Your task to perform on an android device: Open network settings Image 0: 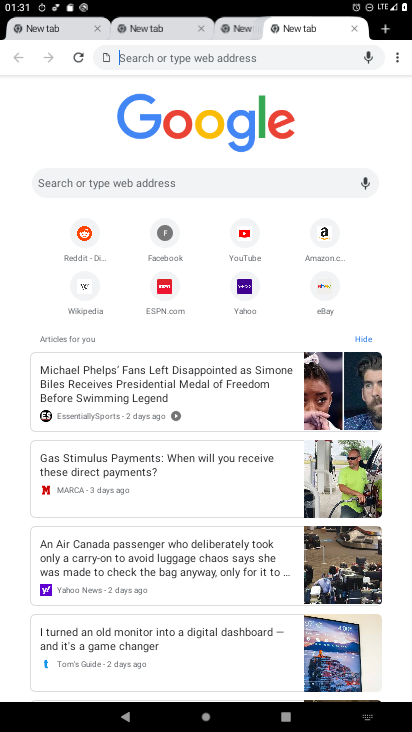
Step 0: press home button
Your task to perform on an android device: Open network settings Image 1: 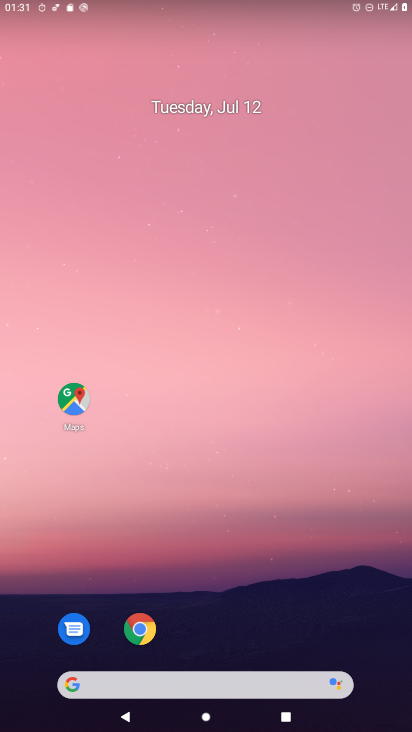
Step 1: drag from (33, 700) to (204, 0)
Your task to perform on an android device: Open network settings Image 2: 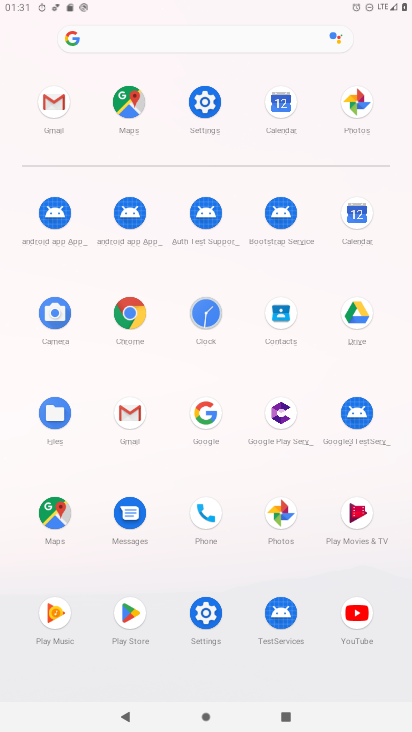
Step 2: click (207, 606)
Your task to perform on an android device: Open network settings Image 3: 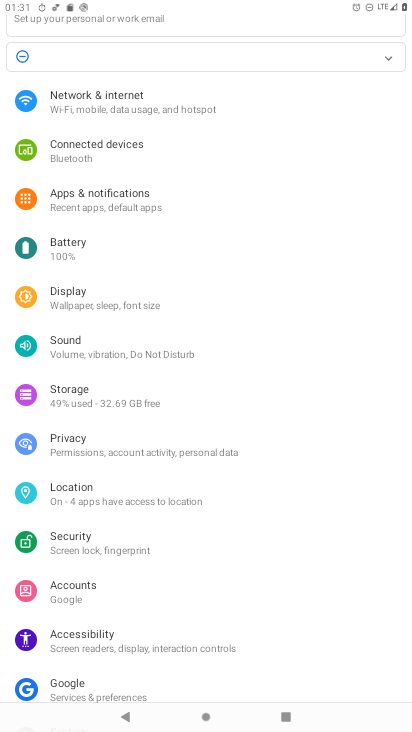
Step 3: click (106, 108)
Your task to perform on an android device: Open network settings Image 4: 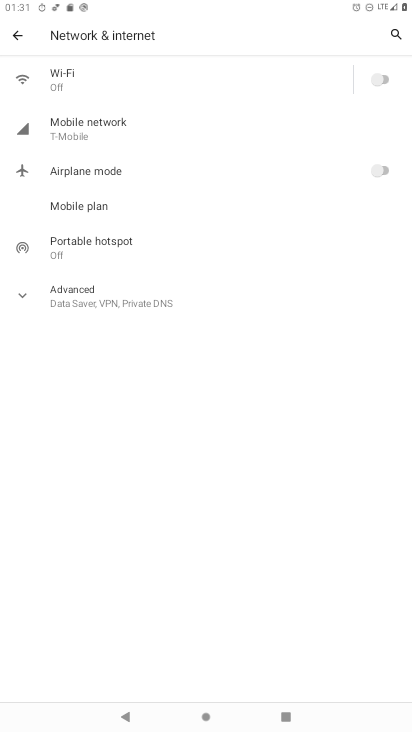
Step 4: task complete